Your task to perform on an android device: check the backup settings in the google photos Image 0: 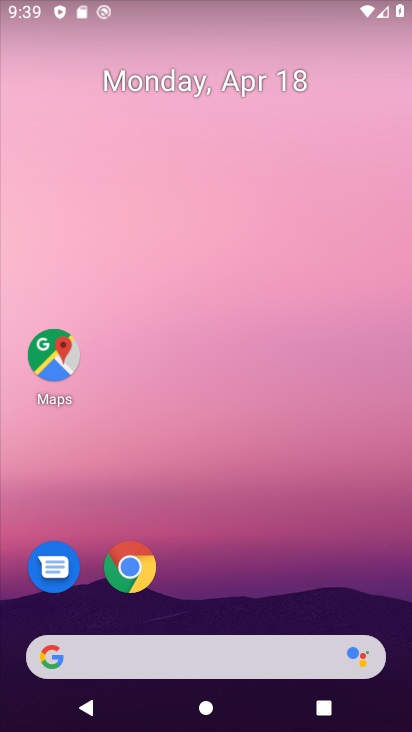
Step 0: press home button
Your task to perform on an android device: check the backup settings in the google photos Image 1: 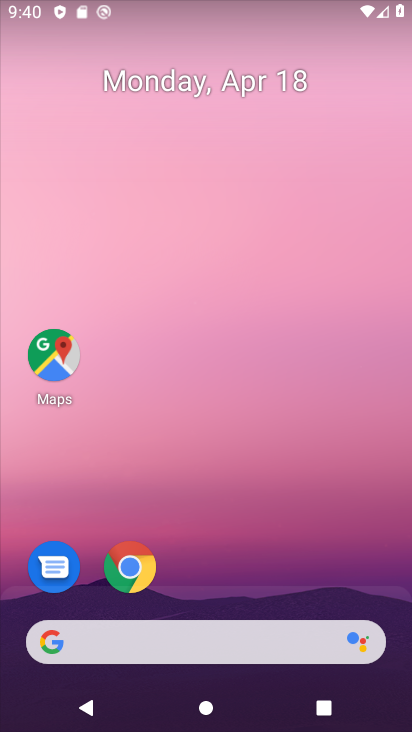
Step 1: drag from (333, 459) to (365, 121)
Your task to perform on an android device: check the backup settings in the google photos Image 2: 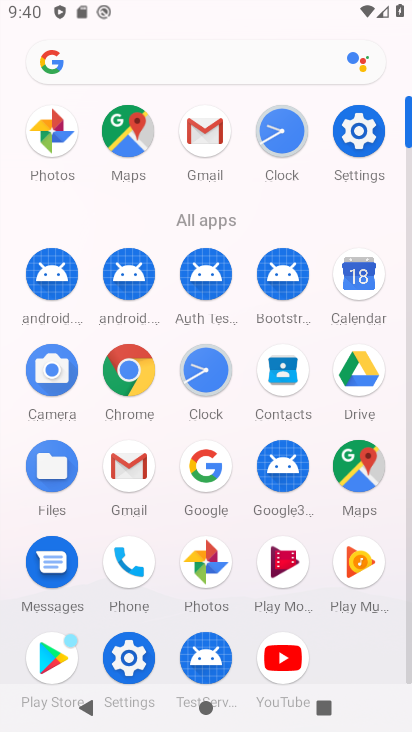
Step 2: click (210, 568)
Your task to perform on an android device: check the backup settings in the google photos Image 3: 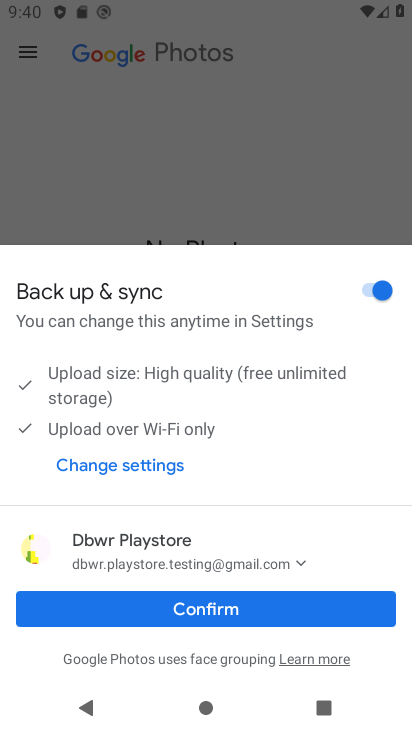
Step 3: click (220, 601)
Your task to perform on an android device: check the backup settings in the google photos Image 4: 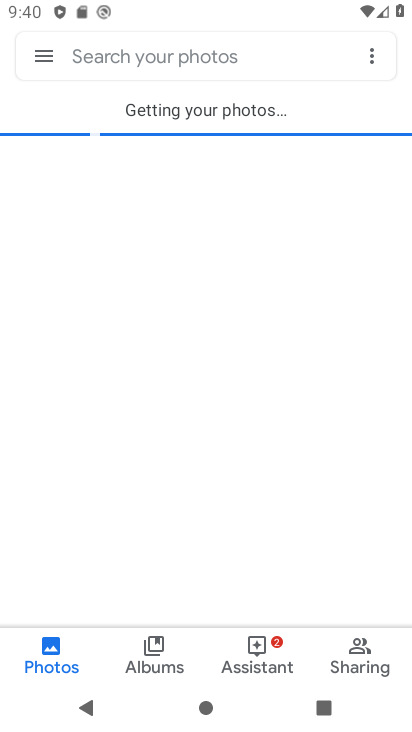
Step 4: click (41, 54)
Your task to perform on an android device: check the backup settings in the google photos Image 5: 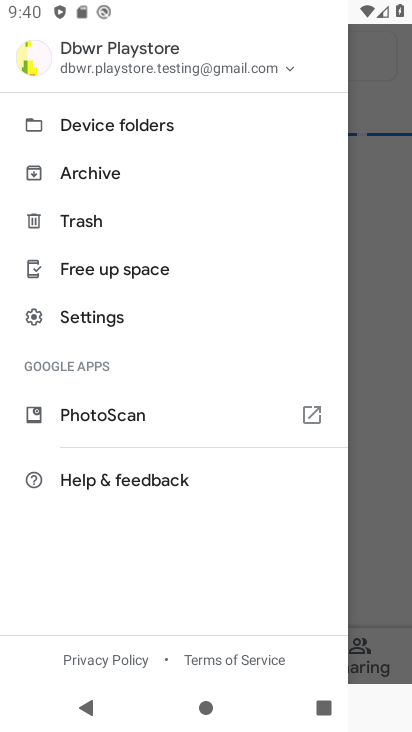
Step 5: click (85, 321)
Your task to perform on an android device: check the backup settings in the google photos Image 6: 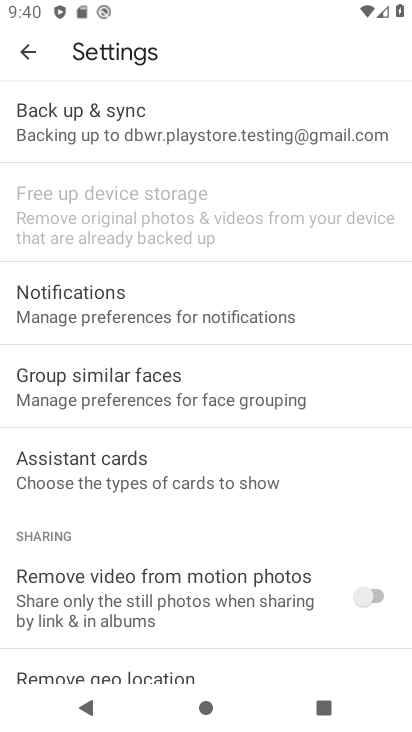
Step 6: click (130, 123)
Your task to perform on an android device: check the backup settings in the google photos Image 7: 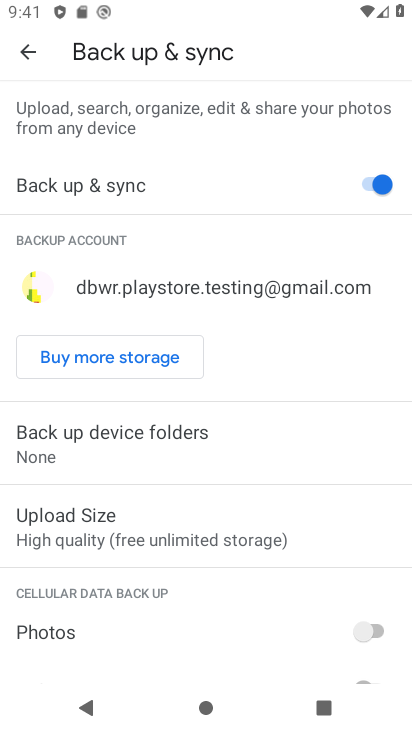
Step 7: task complete